Your task to perform on an android device: Go to Yahoo.com Image 0: 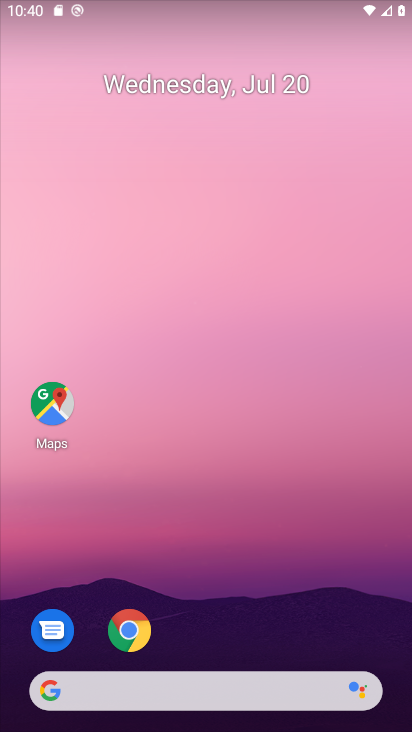
Step 0: drag from (80, 500) to (87, 149)
Your task to perform on an android device: Go to Yahoo.com Image 1: 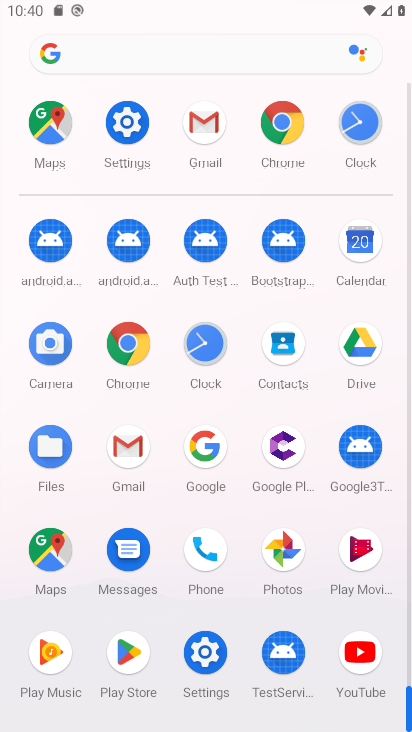
Step 1: drag from (293, 510) to (293, 214)
Your task to perform on an android device: Go to Yahoo.com Image 2: 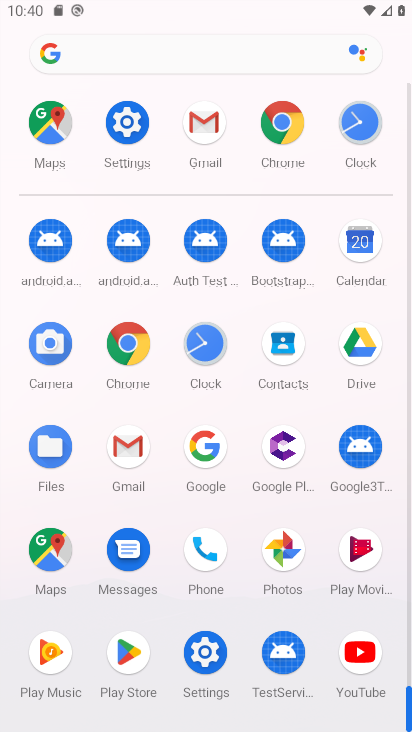
Step 2: click (282, 126)
Your task to perform on an android device: Go to Yahoo.com Image 3: 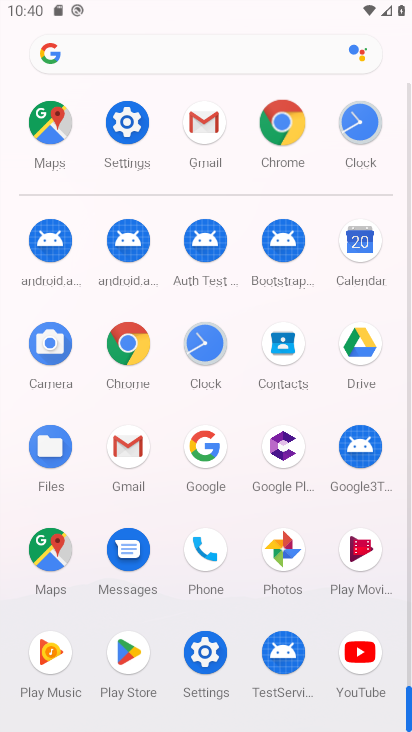
Step 3: click (281, 125)
Your task to perform on an android device: Go to Yahoo.com Image 4: 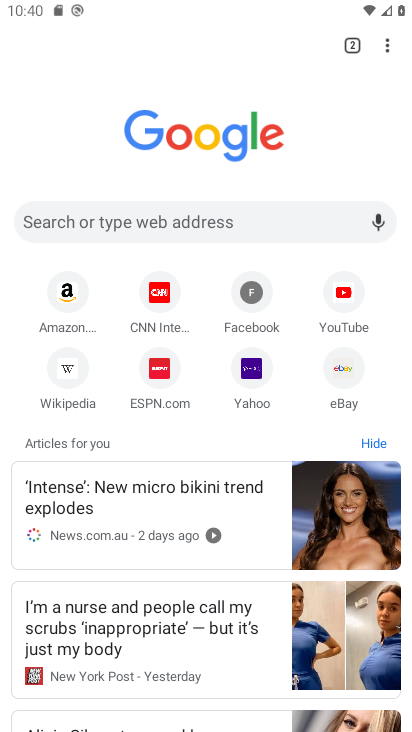
Step 4: click (250, 369)
Your task to perform on an android device: Go to Yahoo.com Image 5: 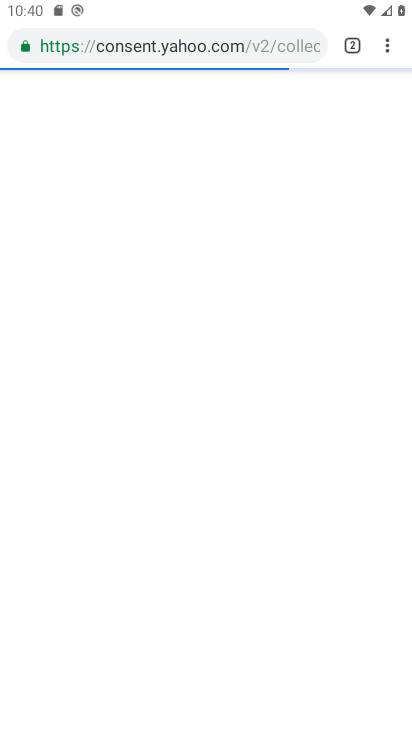
Step 5: click (250, 368)
Your task to perform on an android device: Go to Yahoo.com Image 6: 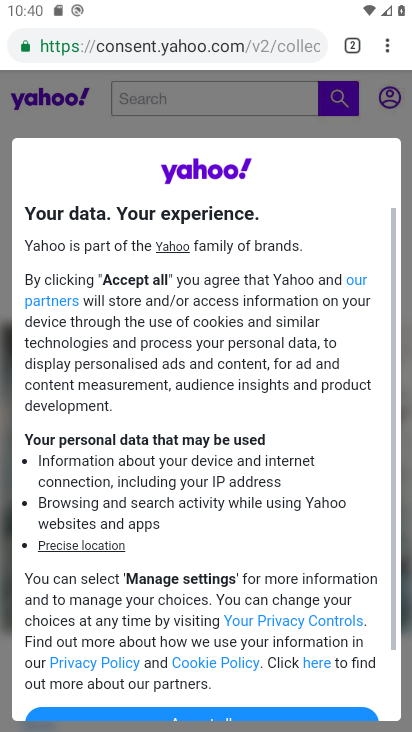
Step 6: task complete